Your task to perform on an android device: Open location settings Image 0: 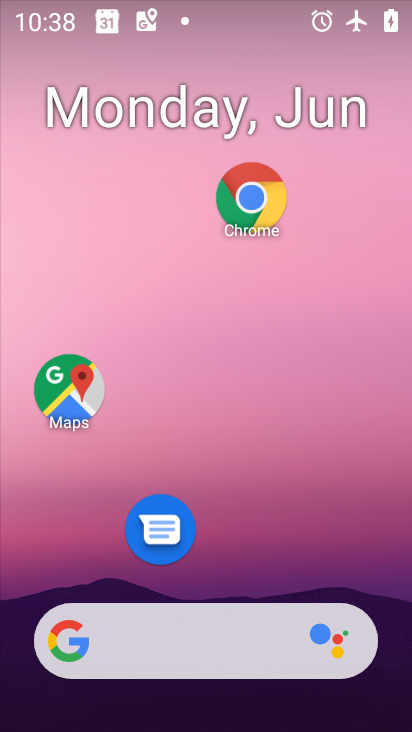
Step 0: drag from (198, 573) to (214, 134)
Your task to perform on an android device: Open location settings Image 1: 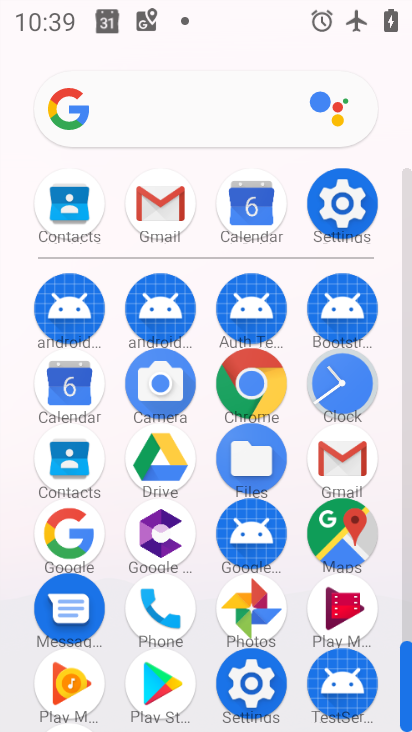
Step 1: click (365, 197)
Your task to perform on an android device: Open location settings Image 2: 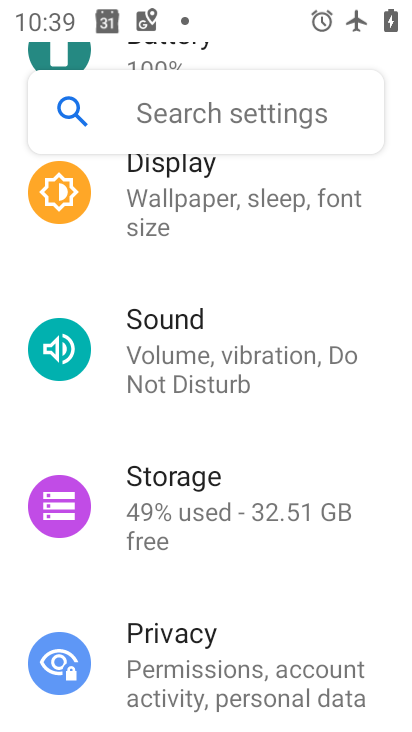
Step 2: drag from (286, 562) to (290, 309)
Your task to perform on an android device: Open location settings Image 3: 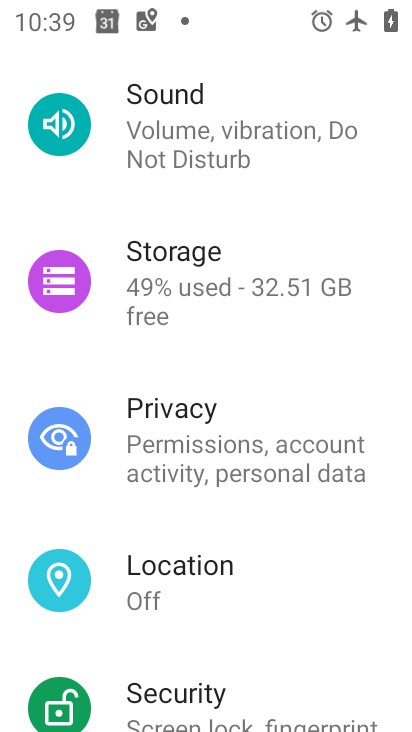
Step 3: click (241, 577)
Your task to perform on an android device: Open location settings Image 4: 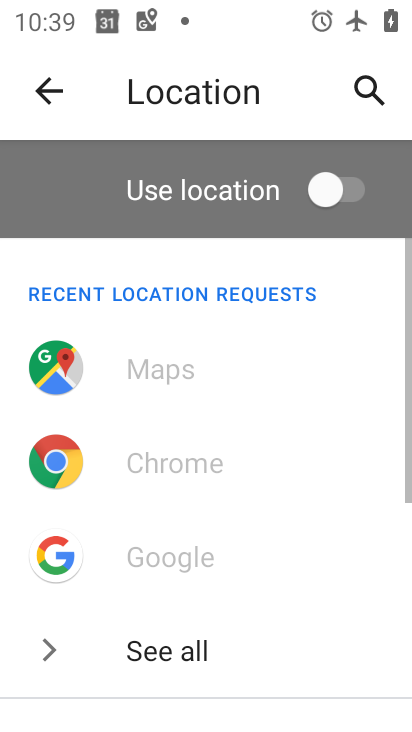
Step 4: task complete